Your task to perform on an android device: delete a single message in the gmail app Image 0: 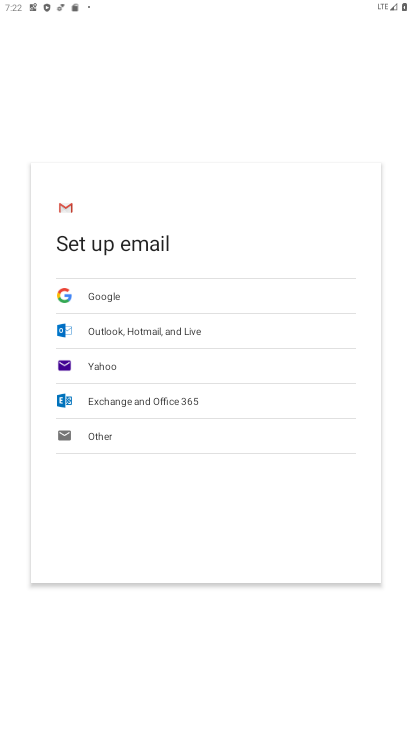
Step 0: press home button
Your task to perform on an android device: delete a single message in the gmail app Image 1: 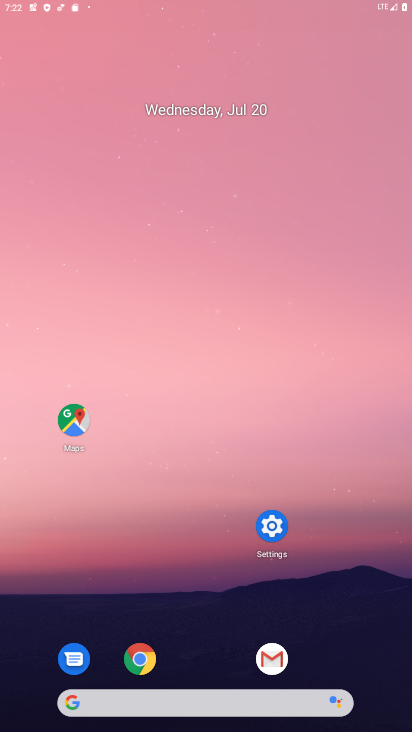
Step 1: click (269, 642)
Your task to perform on an android device: delete a single message in the gmail app Image 2: 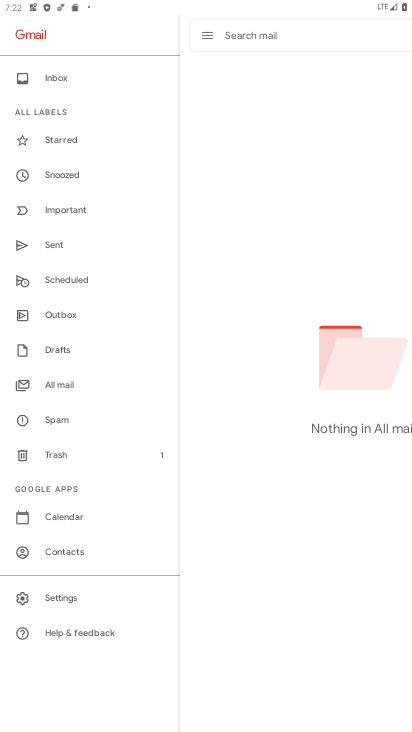
Step 2: click (68, 388)
Your task to perform on an android device: delete a single message in the gmail app Image 3: 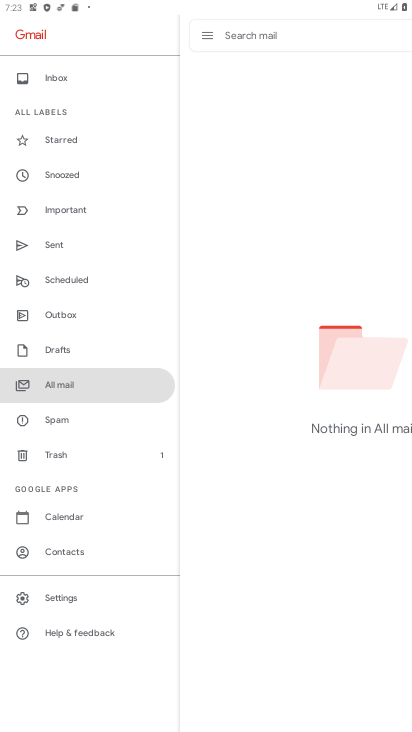
Step 3: task complete